Your task to perform on an android device: Open Chrome and go to settings Image 0: 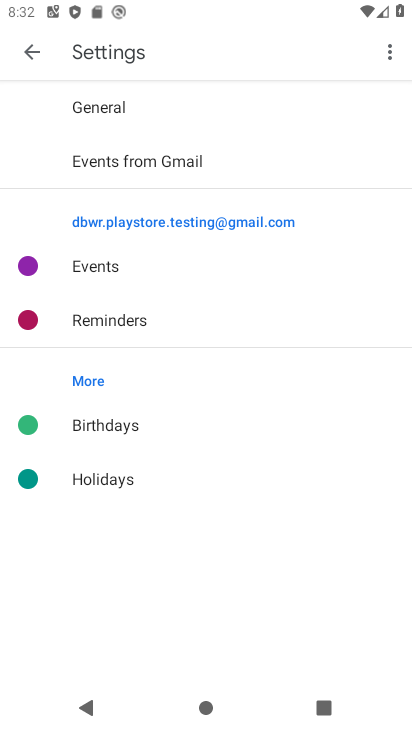
Step 0: press home button
Your task to perform on an android device: Open Chrome and go to settings Image 1: 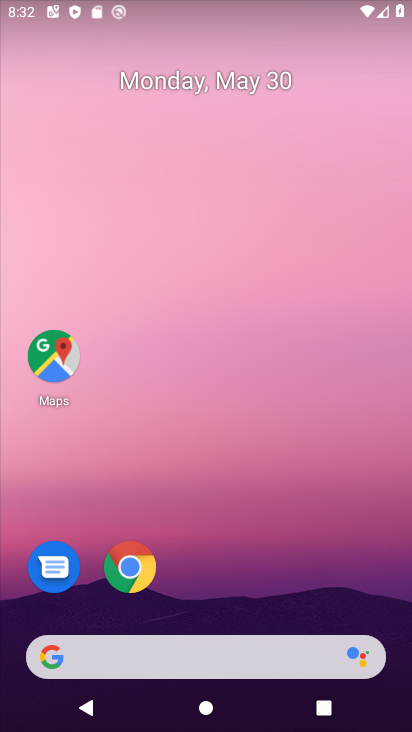
Step 1: click (135, 559)
Your task to perform on an android device: Open Chrome and go to settings Image 2: 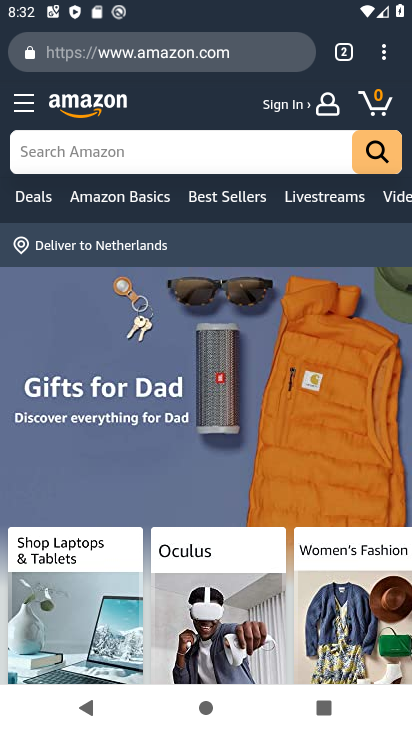
Step 2: click (393, 56)
Your task to perform on an android device: Open Chrome and go to settings Image 3: 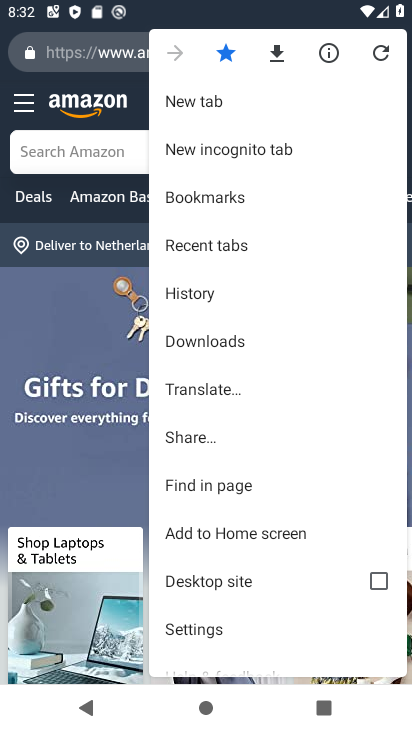
Step 3: click (230, 630)
Your task to perform on an android device: Open Chrome and go to settings Image 4: 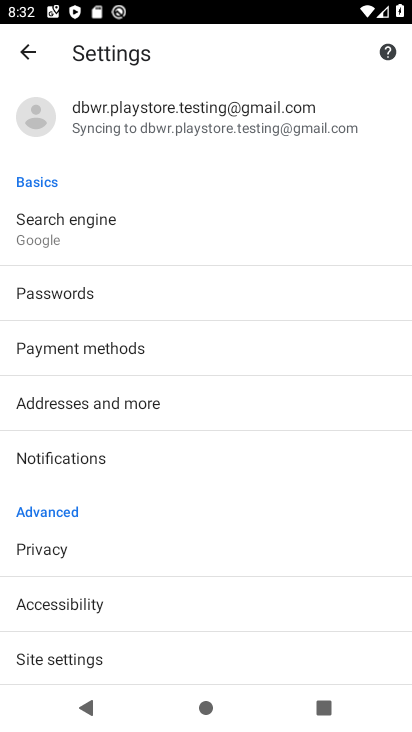
Step 4: task complete